Your task to perform on an android device: open app "Facebook" (install if not already installed) and go to login screen Image 0: 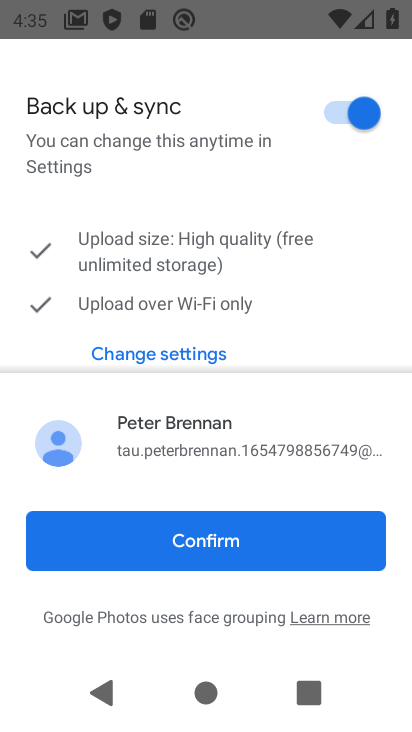
Step 0: press home button
Your task to perform on an android device: open app "Facebook" (install if not already installed) and go to login screen Image 1: 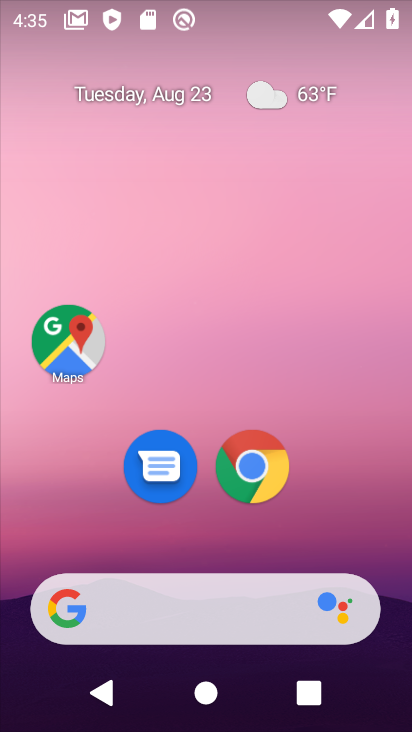
Step 1: drag from (180, 549) to (272, 11)
Your task to perform on an android device: open app "Facebook" (install if not already installed) and go to login screen Image 2: 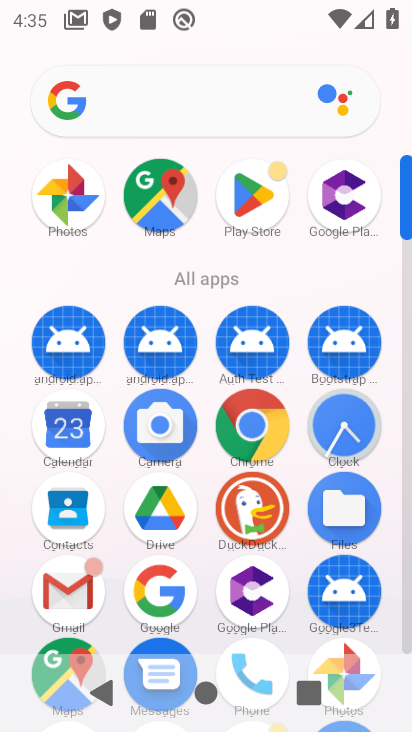
Step 2: click (256, 215)
Your task to perform on an android device: open app "Facebook" (install if not already installed) and go to login screen Image 3: 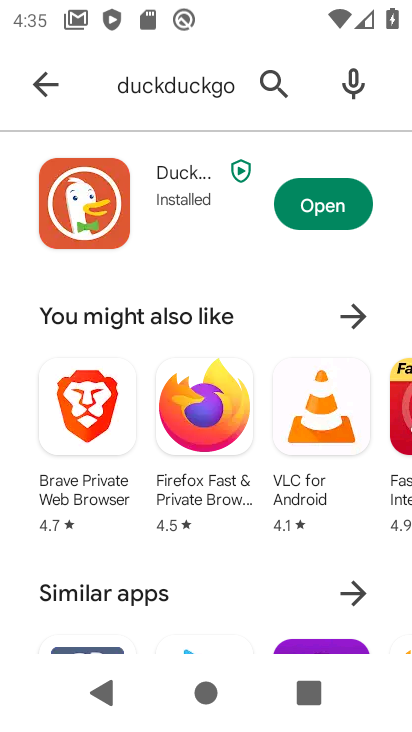
Step 3: click (186, 77)
Your task to perform on an android device: open app "Facebook" (install if not already installed) and go to login screen Image 4: 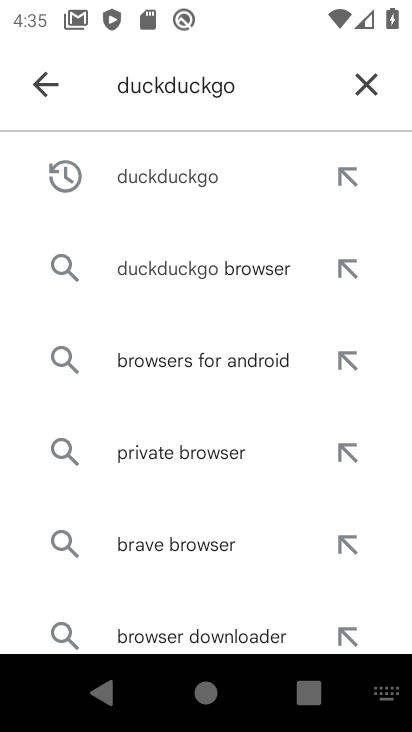
Step 4: click (372, 79)
Your task to perform on an android device: open app "Facebook" (install if not already installed) and go to login screen Image 5: 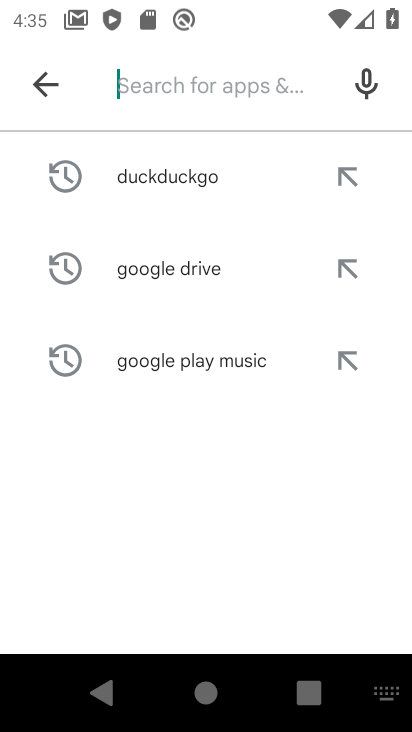
Step 5: type "facebook "
Your task to perform on an android device: open app "Facebook" (install if not already installed) and go to login screen Image 6: 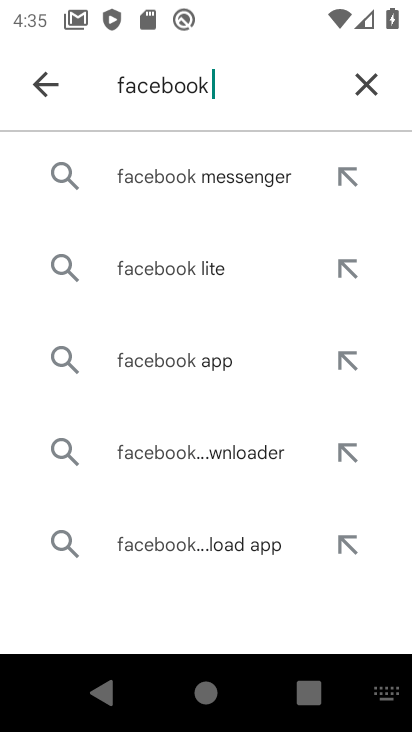
Step 6: click (144, 358)
Your task to perform on an android device: open app "Facebook" (install if not already installed) and go to login screen Image 7: 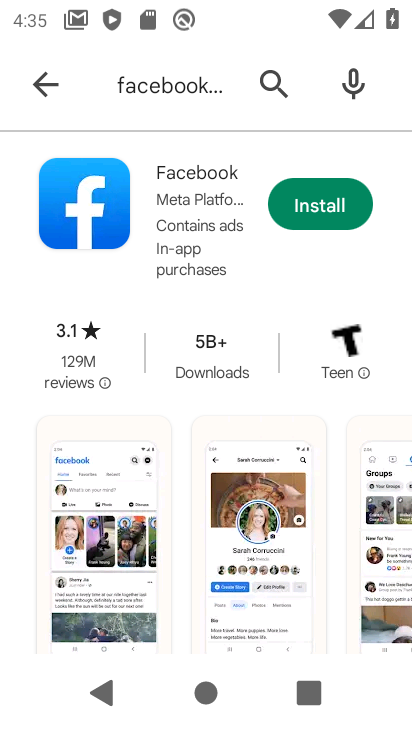
Step 7: click (294, 208)
Your task to perform on an android device: open app "Facebook" (install if not already installed) and go to login screen Image 8: 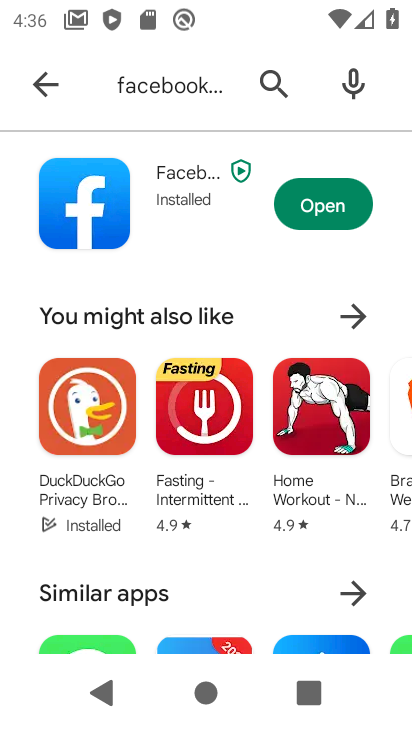
Step 8: click (302, 207)
Your task to perform on an android device: open app "Facebook" (install if not already installed) and go to login screen Image 9: 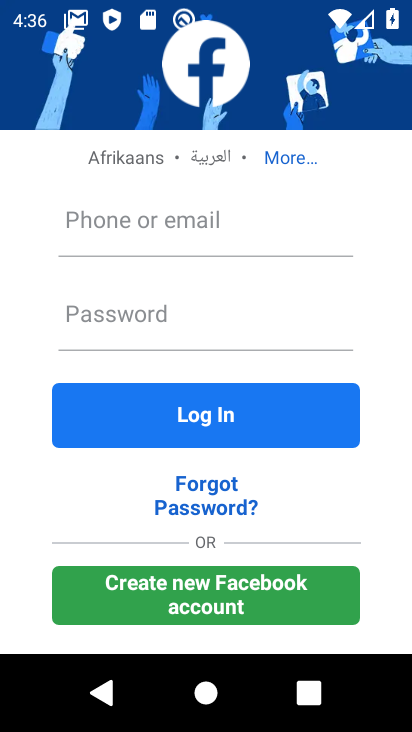
Step 9: task complete